Your task to perform on an android device: turn on javascript in the chrome app Image 0: 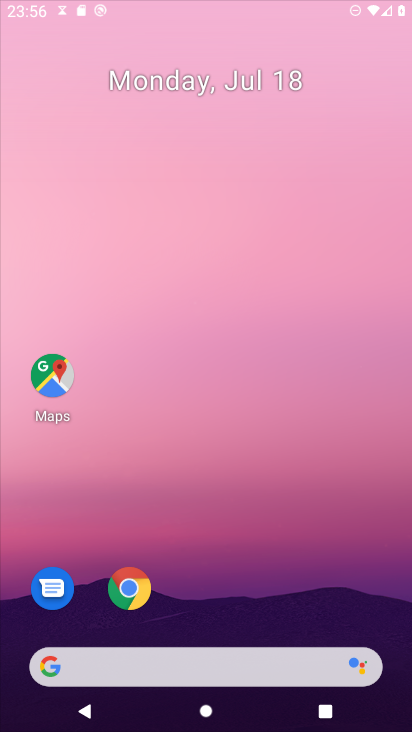
Step 0: press home button
Your task to perform on an android device: turn on javascript in the chrome app Image 1: 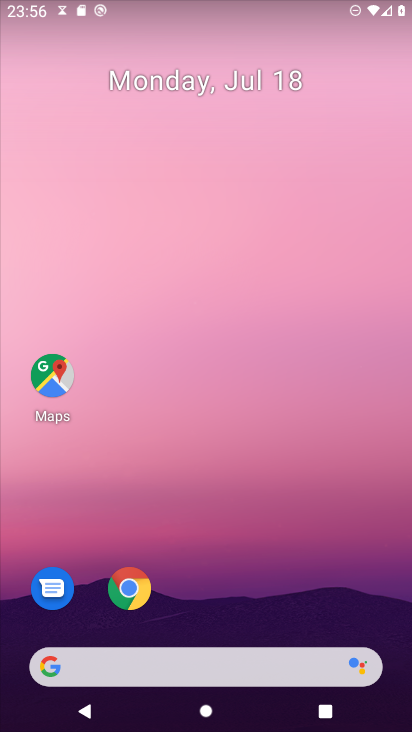
Step 1: click (129, 581)
Your task to perform on an android device: turn on javascript in the chrome app Image 2: 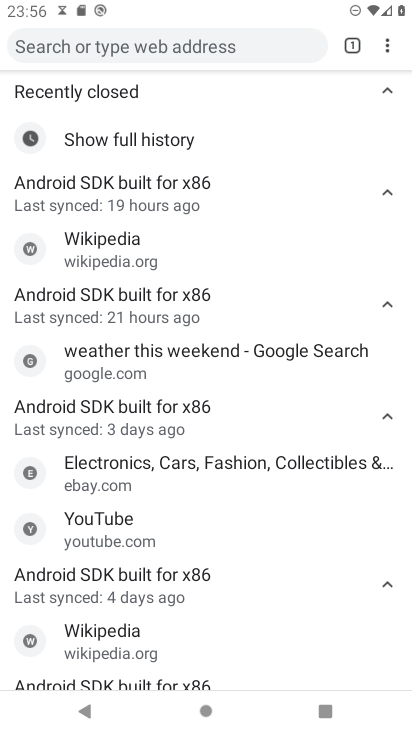
Step 2: drag from (383, 40) to (233, 376)
Your task to perform on an android device: turn on javascript in the chrome app Image 3: 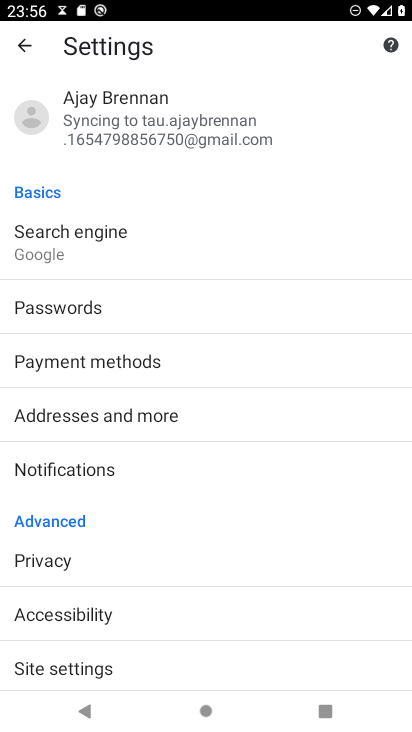
Step 3: click (43, 669)
Your task to perform on an android device: turn on javascript in the chrome app Image 4: 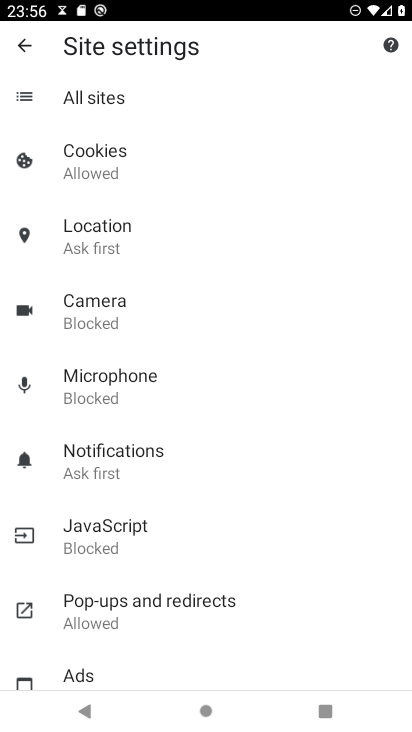
Step 4: click (89, 527)
Your task to perform on an android device: turn on javascript in the chrome app Image 5: 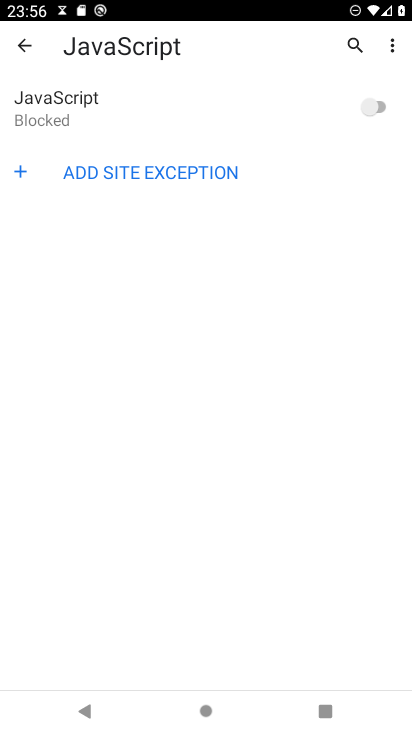
Step 5: click (371, 97)
Your task to perform on an android device: turn on javascript in the chrome app Image 6: 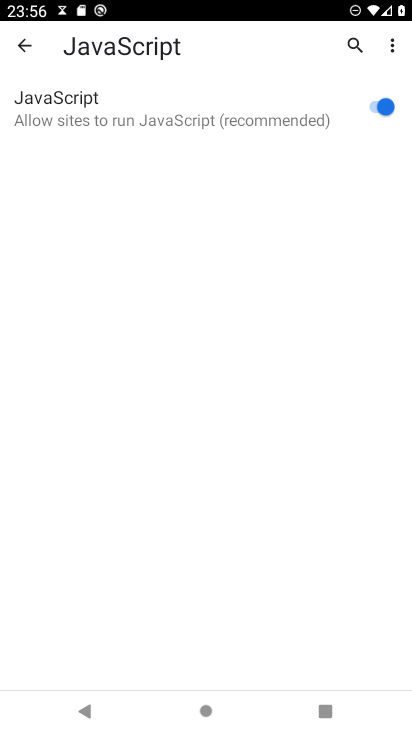
Step 6: task complete